Your task to perform on an android device: turn on wifi Image 0: 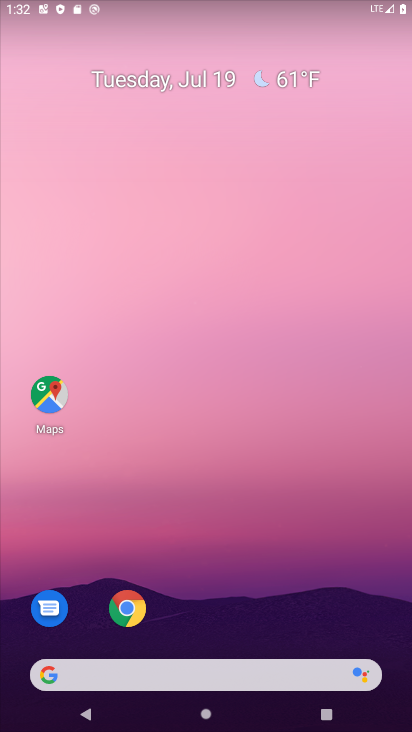
Step 0: drag from (260, 635) to (317, 34)
Your task to perform on an android device: turn on wifi Image 1: 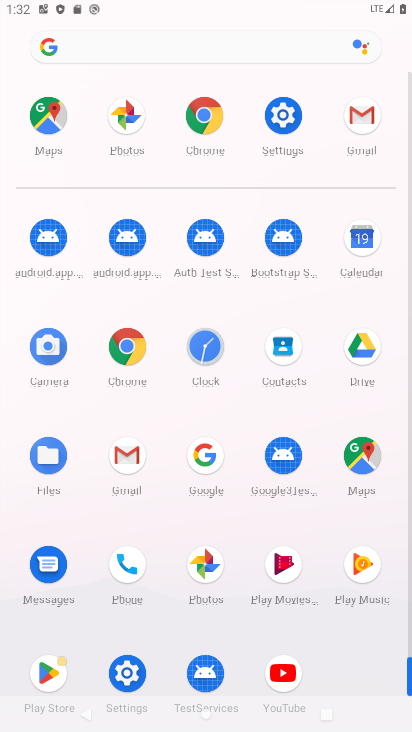
Step 1: click (291, 107)
Your task to perform on an android device: turn on wifi Image 2: 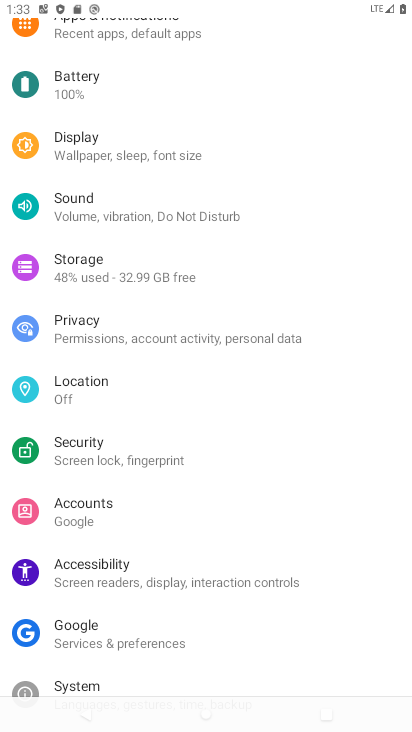
Step 2: drag from (62, 84) to (180, 603)
Your task to perform on an android device: turn on wifi Image 3: 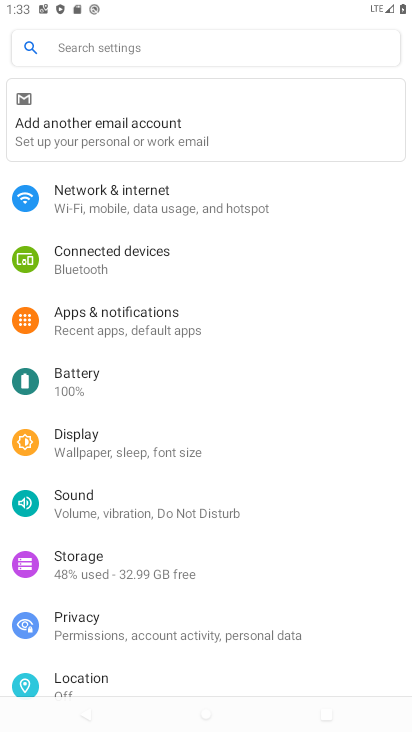
Step 3: click (90, 198)
Your task to perform on an android device: turn on wifi Image 4: 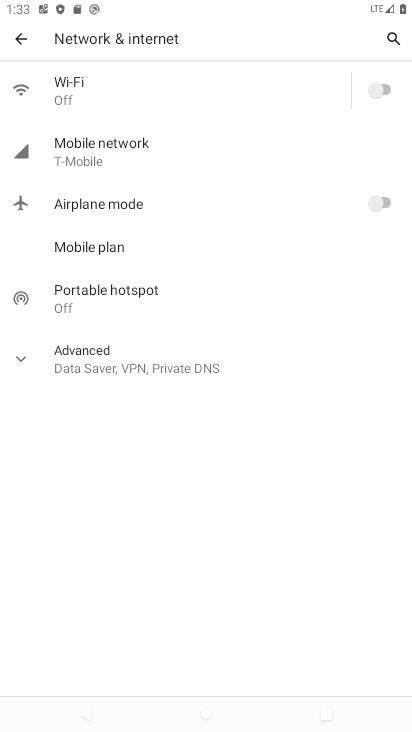
Step 4: click (383, 90)
Your task to perform on an android device: turn on wifi Image 5: 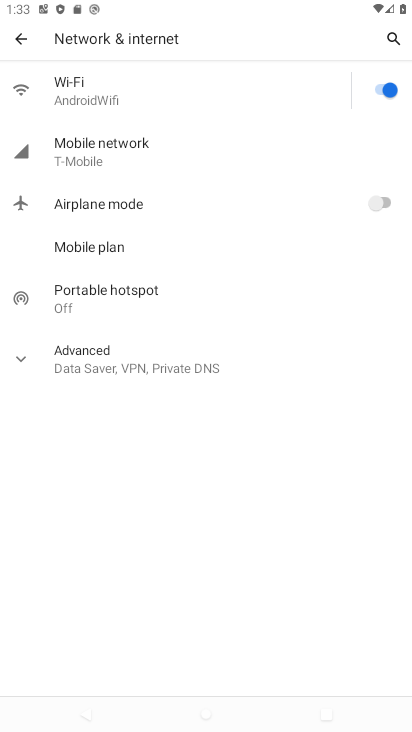
Step 5: task complete